Your task to perform on an android device: turn off smart reply in the gmail app Image 0: 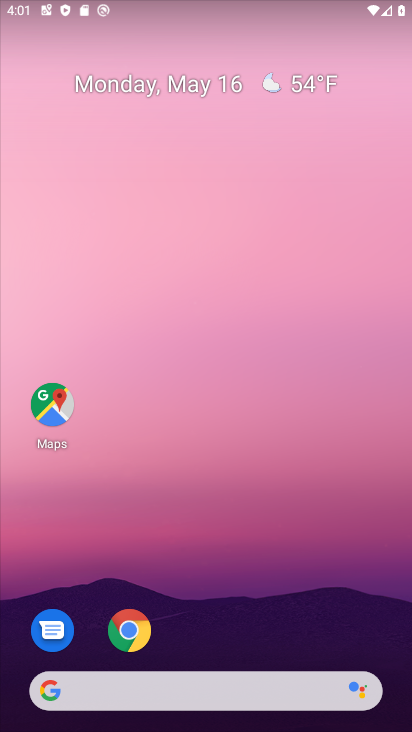
Step 0: drag from (259, 646) to (247, 210)
Your task to perform on an android device: turn off smart reply in the gmail app Image 1: 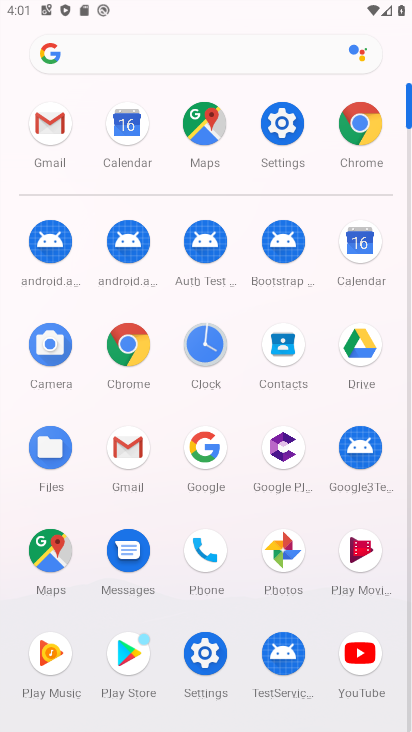
Step 1: click (45, 119)
Your task to perform on an android device: turn off smart reply in the gmail app Image 2: 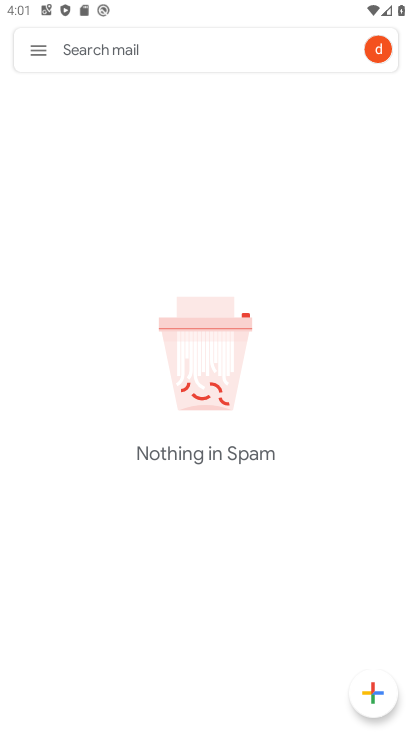
Step 2: click (32, 50)
Your task to perform on an android device: turn off smart reply in the gmail app Image 3: 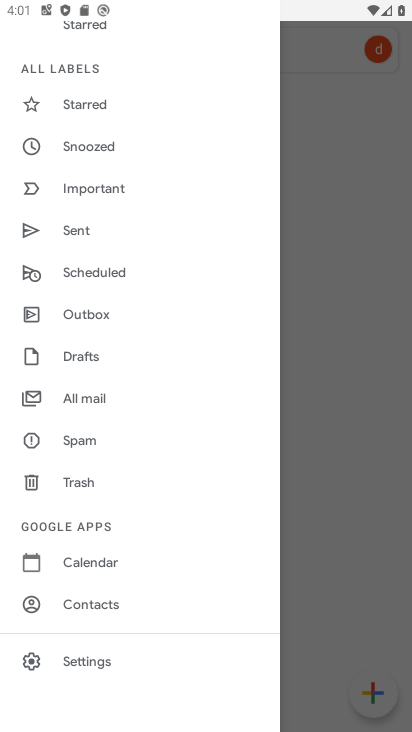
Step 3: click (125, 667)
Your task to perform on an android device: turn off smart reply in the gmail app Image 4: 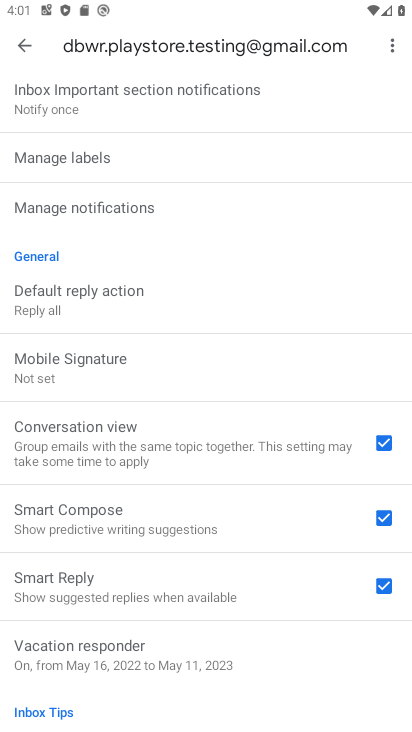
Step 4: click (388, 593)
Your task to perform on an android device: turn off smart reply in the gmail app Image 5: 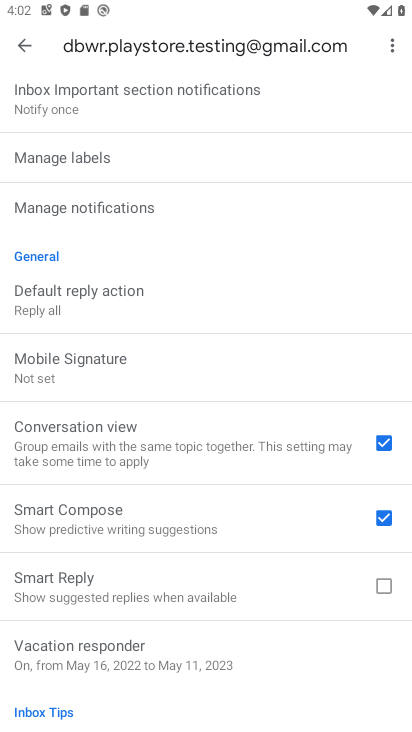
Step 5: task complete